Your task to perform on an android device: turn off data saver in the chrome app Image 0: 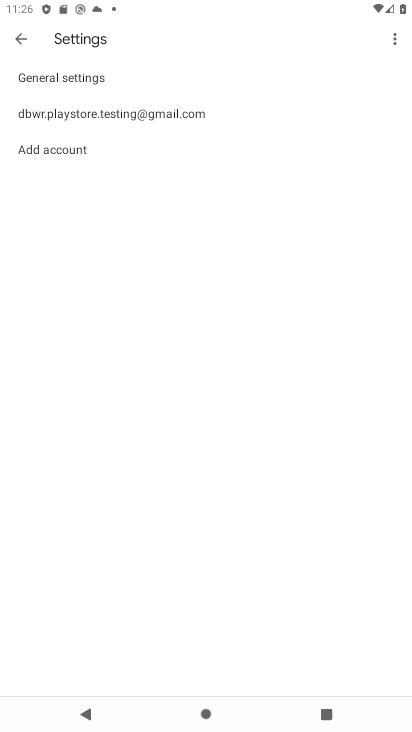
Step 0: press home button
Your task to perform on an android device: turn off data saver in the chrome app Image 1: 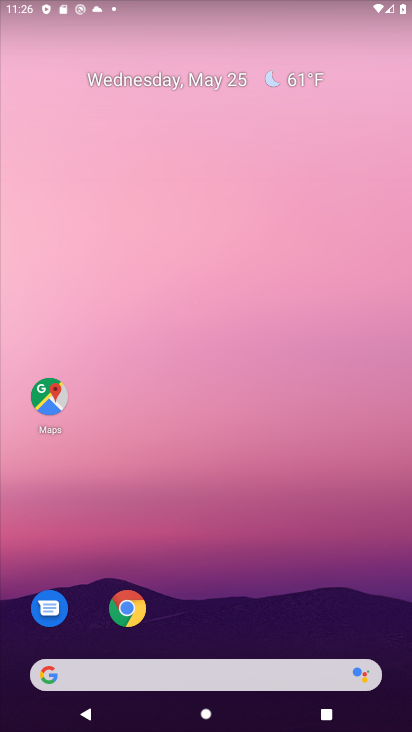
Step 1: click (126, 608)
Your task to perform on an android device: turn off data saver in the chrome app Image 2: 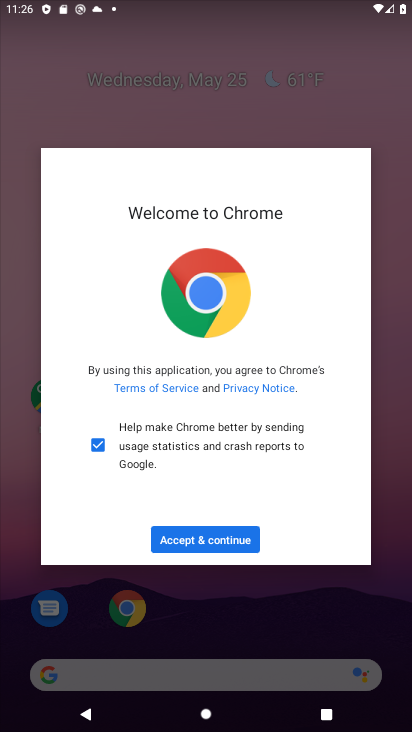
Step 2: click (204, 542)
Your task to perform on an android device: turn off data saver in the chrome app Image 3: 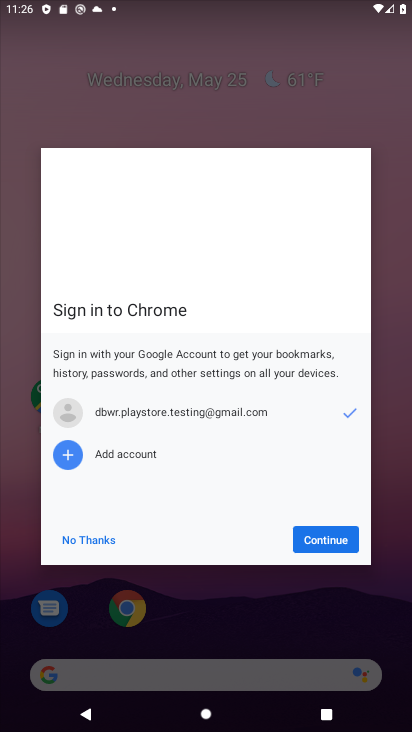
Step 3: click (312, 539)
Your task to perform on an android device: turn off data saver in the chrome app Image 4: 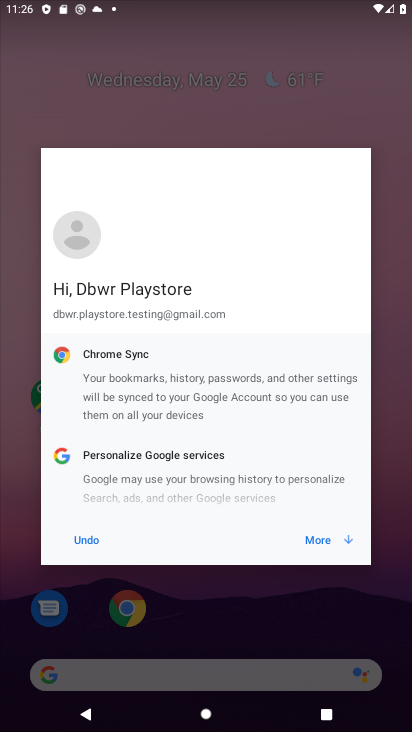
Step 4: click (319, 537)
Your task to perform on an android device: turn off data saver in the chrome app Image 5: 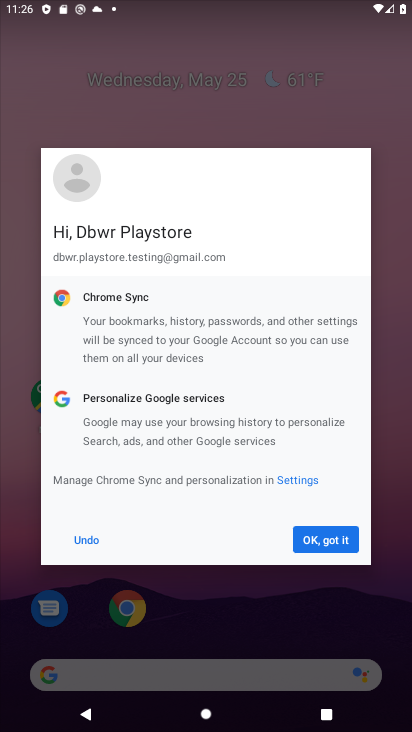
Step 5: click (322, 539)
Your task to perform on an android device: turn off data saver in the chrome app Image 6: 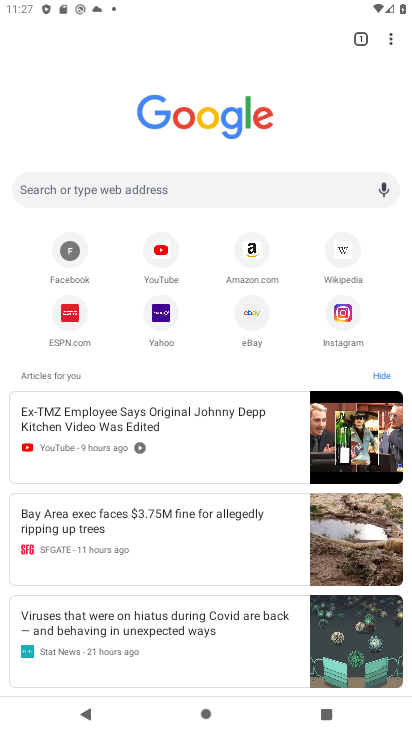
Step 6: click (389, 40)
Your task to perform on an android device: turn off data saver in the chrome app Image 7: 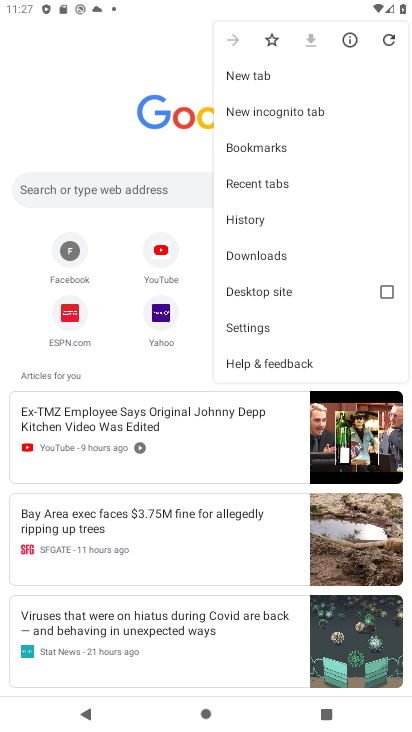
Step 7: click (266, 319)
Your task to perform on an android device: turn off data saver in the chrome app Image 8: 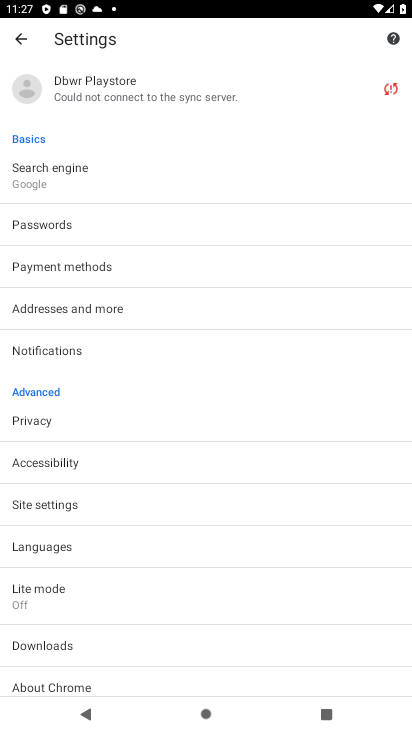
Step 8: click (67, 584)
Your task to perform on an android device: turn off data saver in the chrome app Image 9: 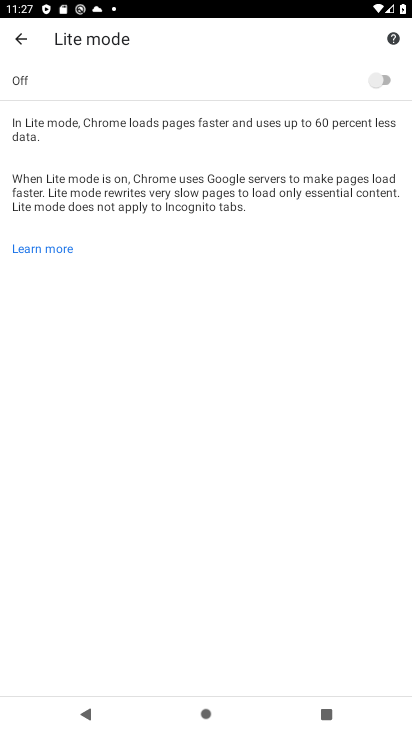
Step 9: task complete